Your task to perform on an android device: Go to display settings Image 0: 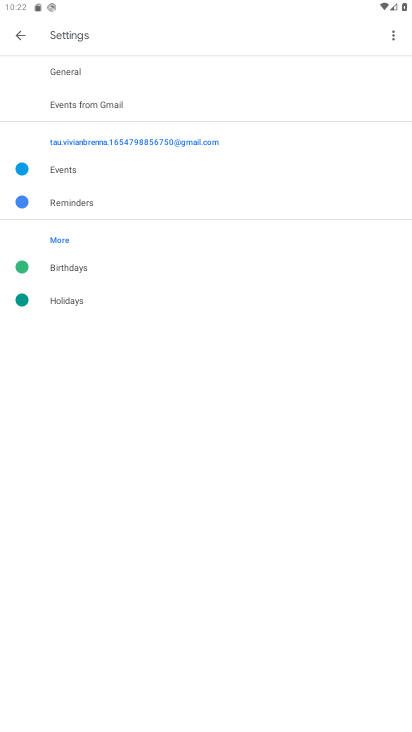
Step 0: press home button
Your task to perform on an android device: Go to display settings Image 1: 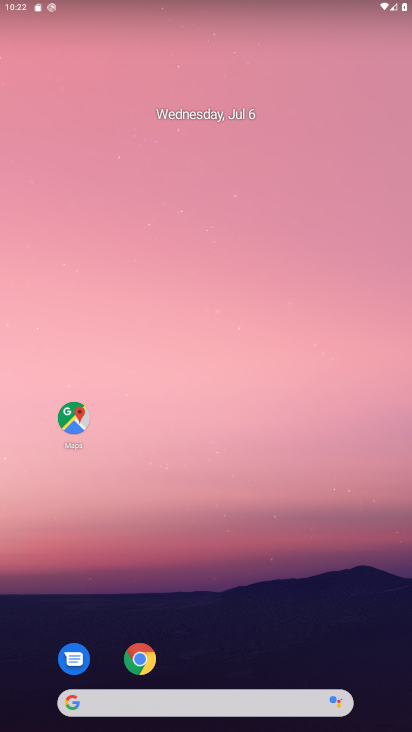
Step 1: drag from (247, 537) to (202, 129)
Your task to perform on an android device: Go to display settings Image 2: 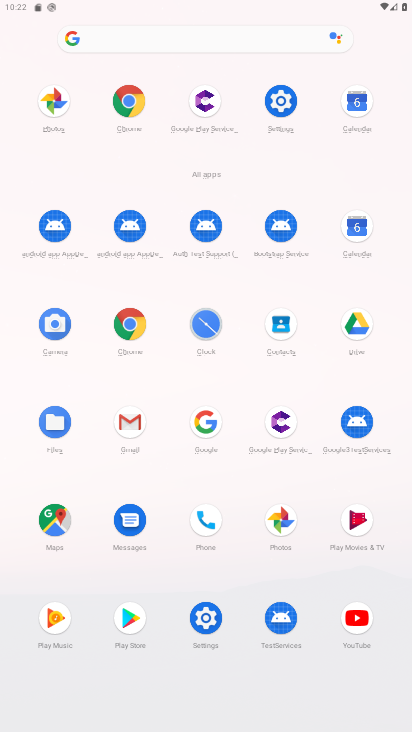
Step 2: click (282, 102)
Your task to perform on an android device: Go to display settings Image 3: 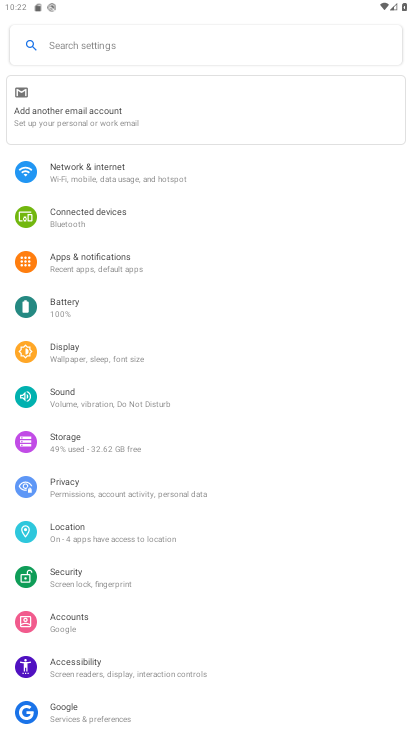
Step 3: click (59, 352)
Your task to perform on an android device: Go to display settings Image 4: 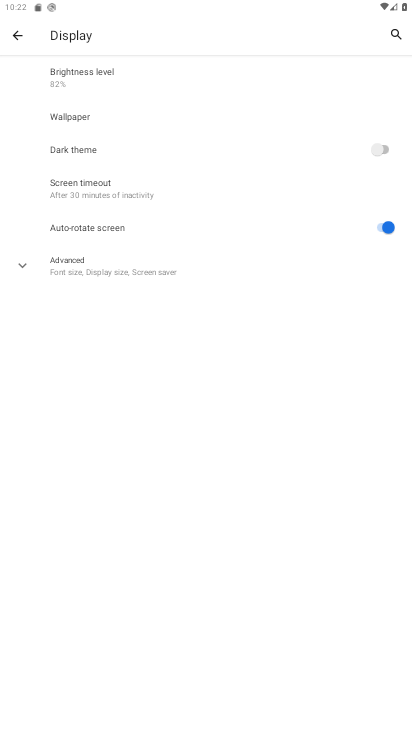
Step 4: task complete